Your task to perform on an android device: turn smart compose on in the gmail app Image 0: 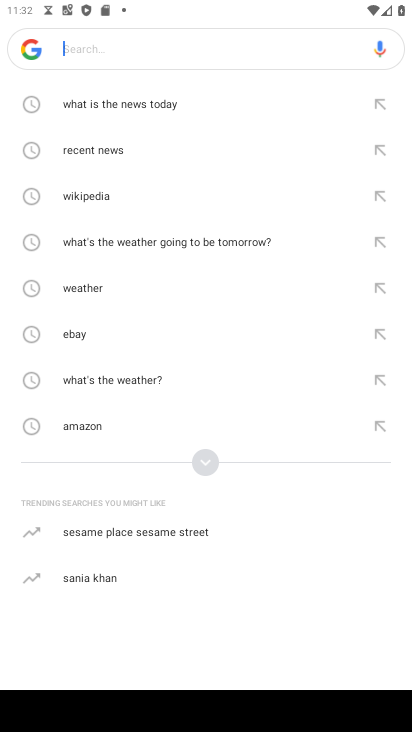
Step 0: press home button
Your task to perform on an android device: turn smart compose on in the gmail app Image 1: 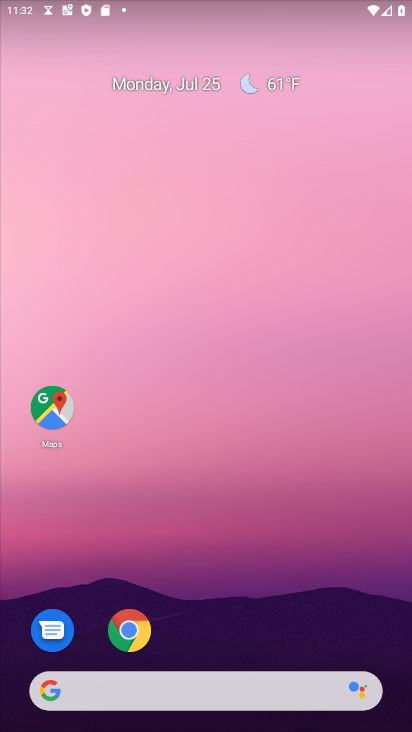
Step 1: drag from (240, 623) to (190, 158)
Your task to perform on an android device: turn smart compose on in the gmail app Image 2: 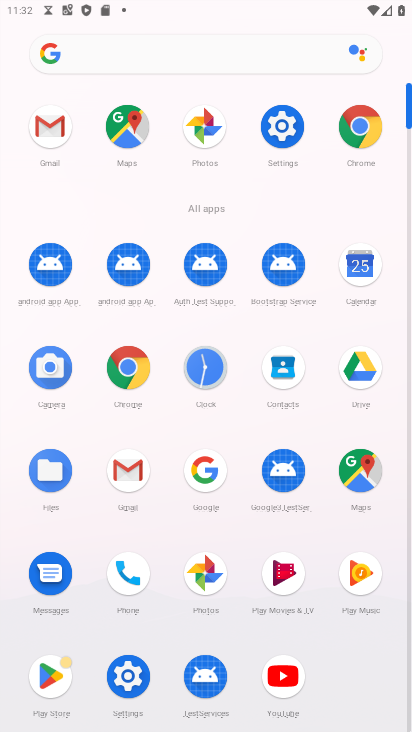
Step 2: click (43, 134)
Your task to perform on an android device: turn smart compose on in the gmail app Image 3: 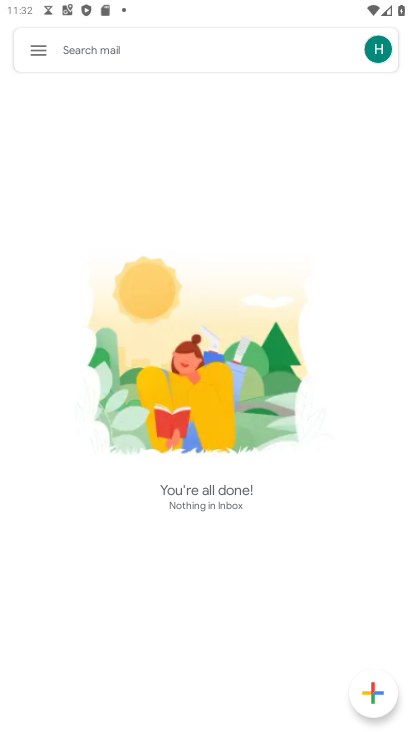
Step 3: click (33, 50)
Your task to perform on an android device: turn smart compose on in the gmail app Image 4: 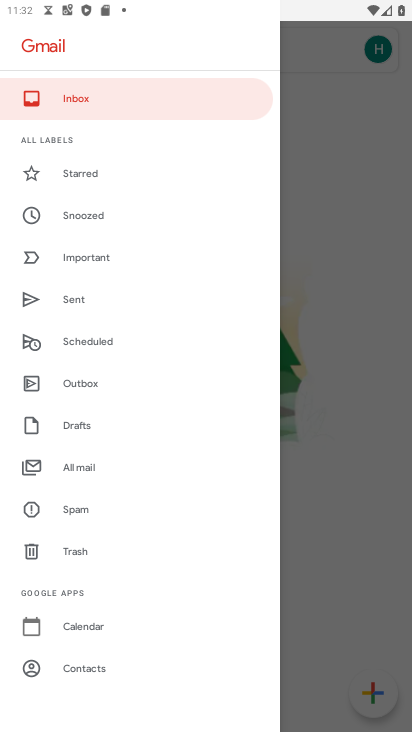
Step 4: drag from (87, 576) to (81, 293)
Your task to perform on an android device: turn smart compose on in the gmail app Image 5: 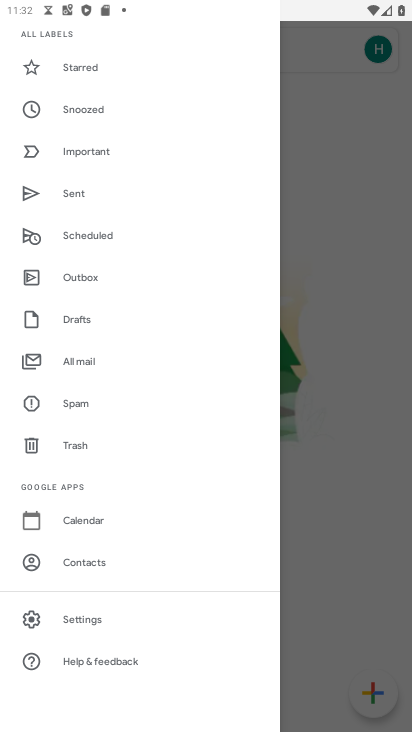
Step 5: click (107, 620)
Your task to perform on an android device: turn smart compose on in the gmail app Image 6: 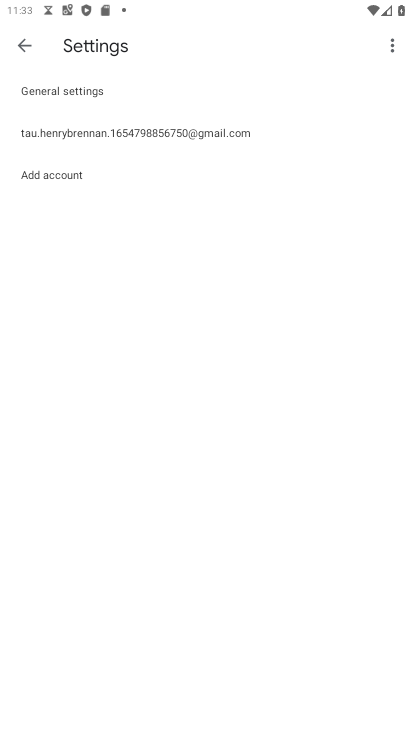
Step 6: click (130, 126)
Your task to perform on an android device: turn smart compose on in the gmail app Image 7: 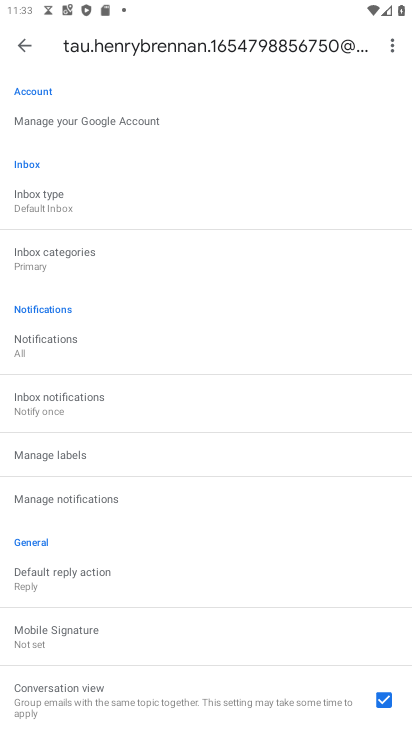
Step 7: task complete